Your task to perform on an android device: check data usage Image 0: 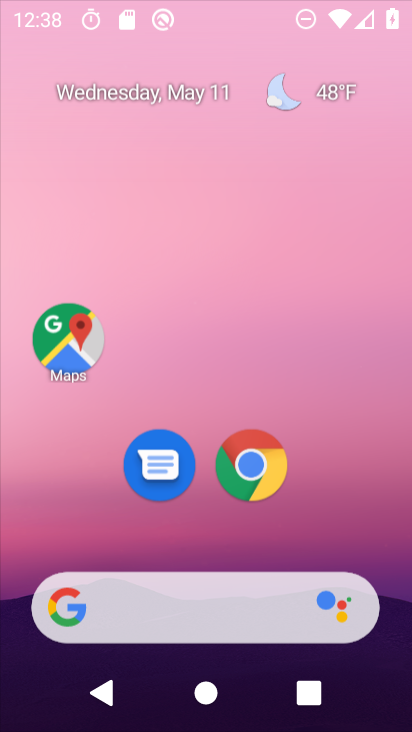
Step 0: drag from (210, 533) to (242, 91)
Your task to perform on an android device: check data usage Image 1: 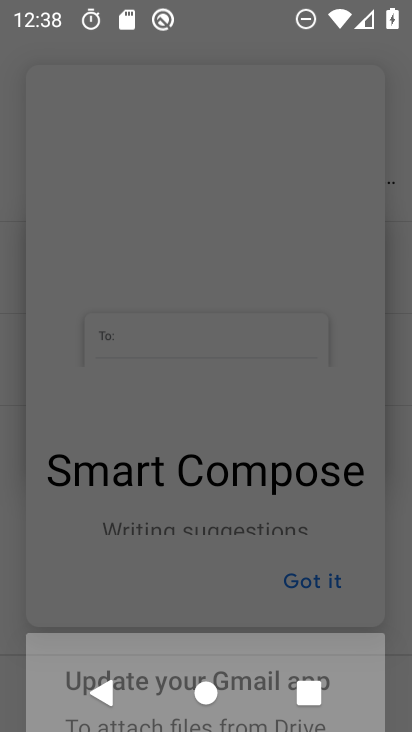
Step 1: press home button
Your task to perform on an android device: check data usage Image 2: 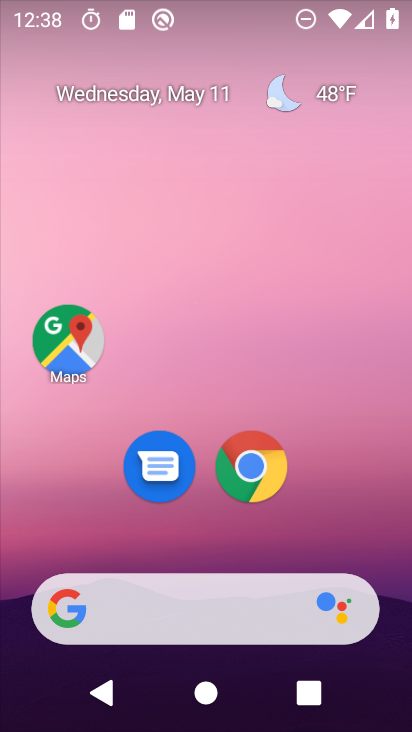
Step 2: drag from (210, 548) to (227, 89)
Your task to perform on an android device: check data usage Image 3: 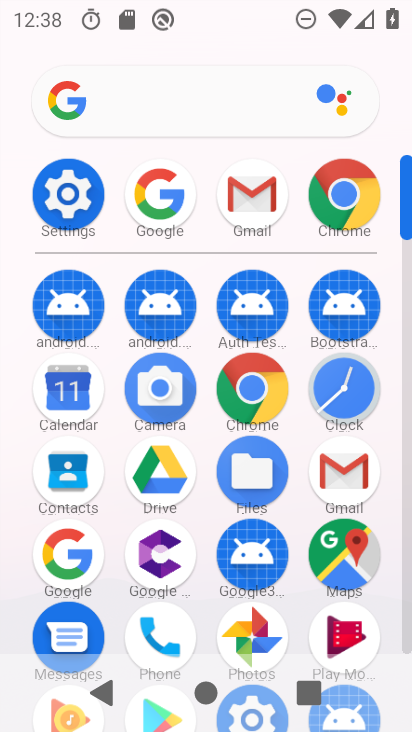
Step 3: click (65, 191)
Your task to perform on an android device: check data usage Image 4: 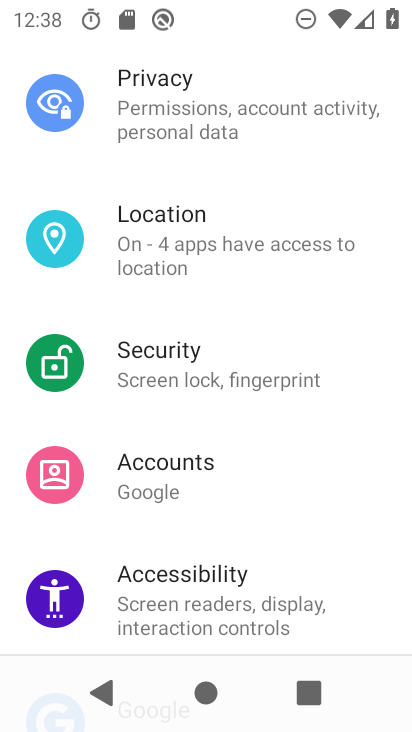
Step 4: drag from (212, 120) to (224, 673)
Your task to perform on an android device: check data usage Image 5: 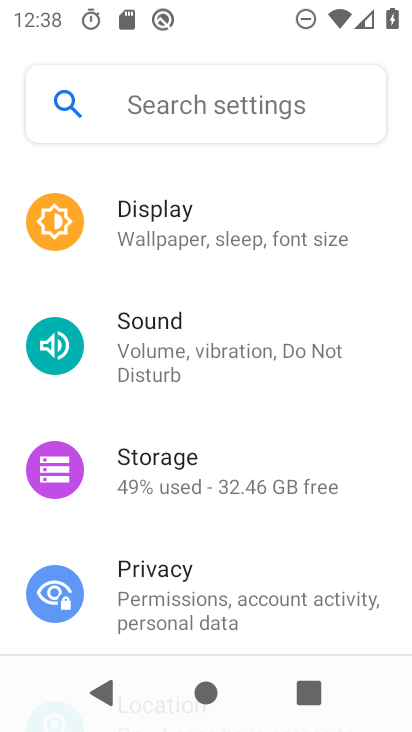
Step 5: drag from (214, 164) to (237, 671)
Your task to perform on an android device: check data usage Image 6: 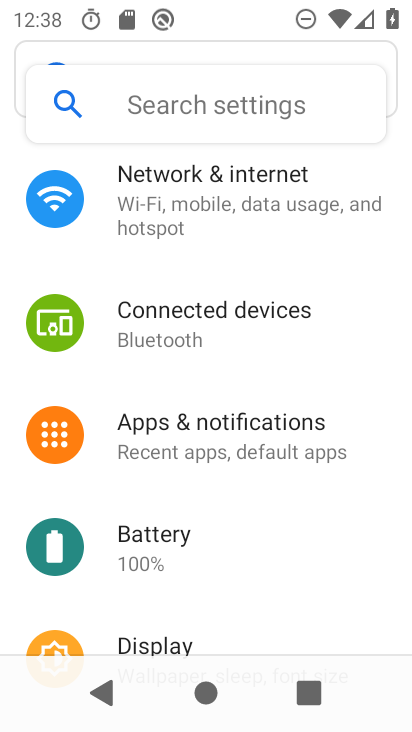
Step 6: drag from (190, 184) to (241, 661)
Your task to perform on an android device: check data usage Image 7: 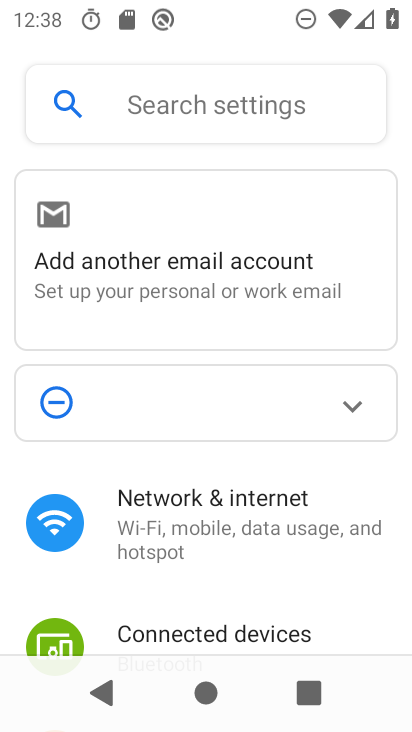
Step 7: click (208, 527)
Your task to perform on an android device: check data usage Image 8: 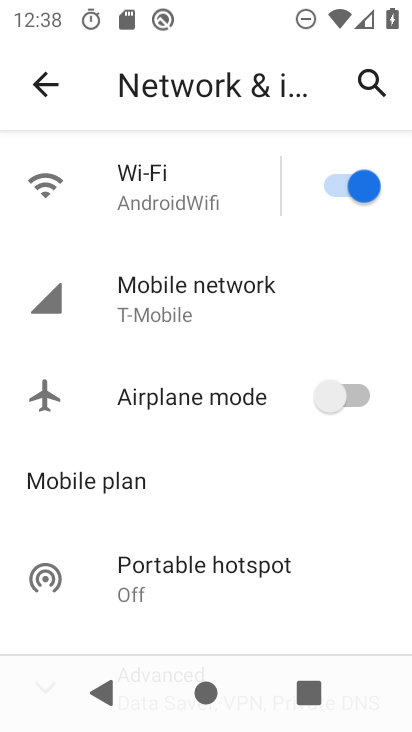
Step 8: click (210, 298)
Your task to perform on an android device: check data usage Image 9: 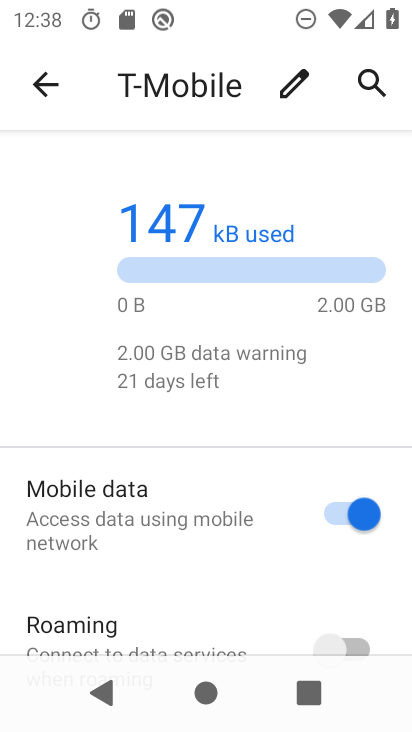
Step 9: drag from (185, 601) to (201, 156)
Your task to perform on an android device: check data usage Image 10: 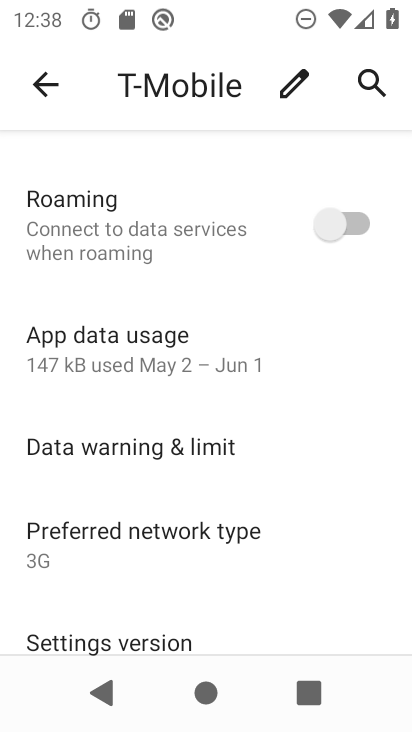
Step 10: click (209, 335)
Your task to perform on an android device: check data usage Image 11: 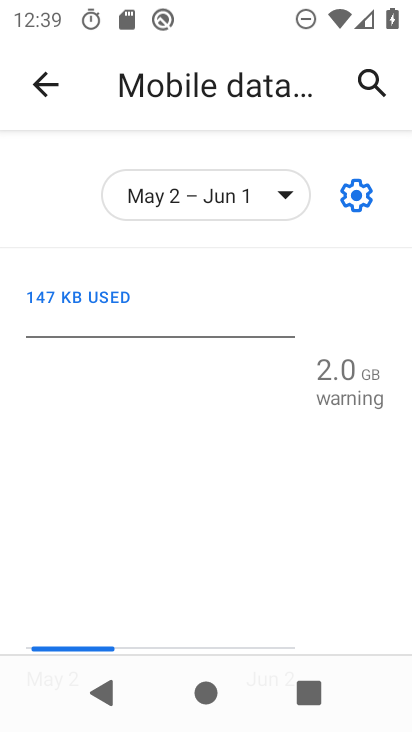
Step 11: task complete